Your task to perform on an android device: turn off wifi Image 0: 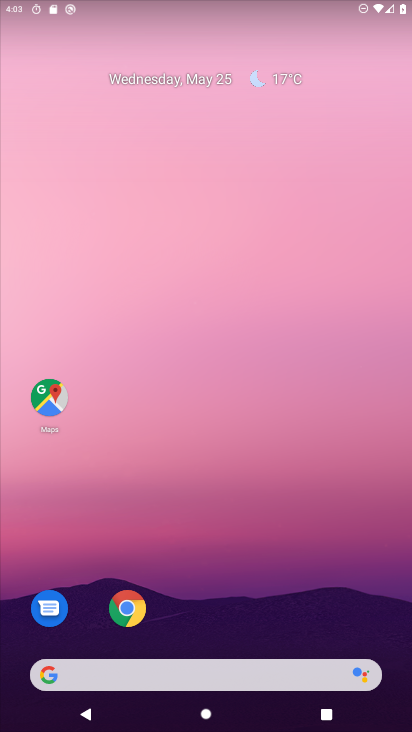
Step 0: drag from (163, 640) to (82, 157)
Your task to perform on an android device: turn off wifi Image 1: 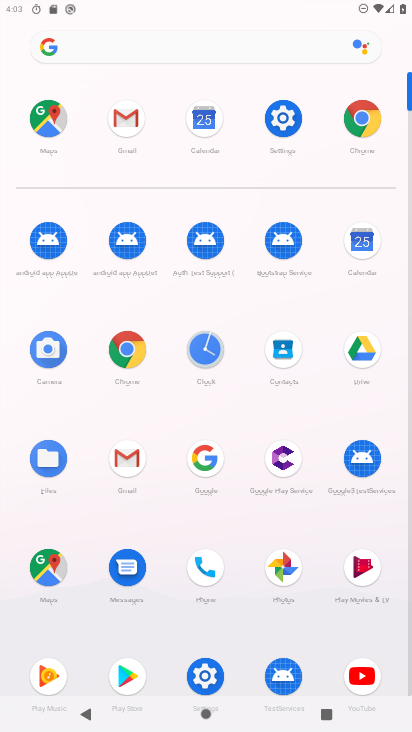
Step 1: click (281, 118)
Your task to perform on an android device: turn off wifi Image 2: 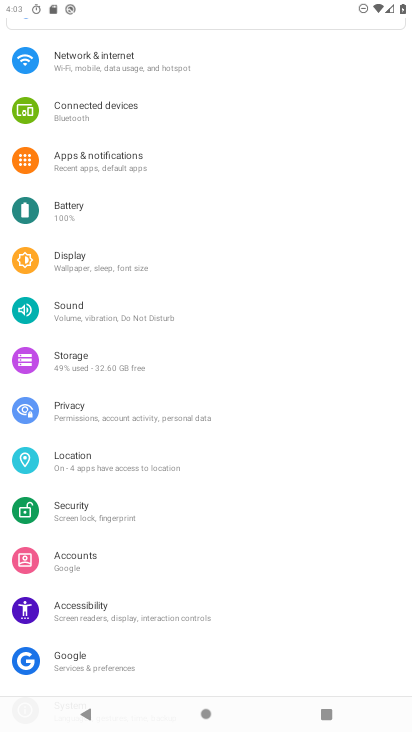
Step 2: drag from (150, 251) to (175, 444)
Your task to perform on an android device: turn off wifi Image 3: 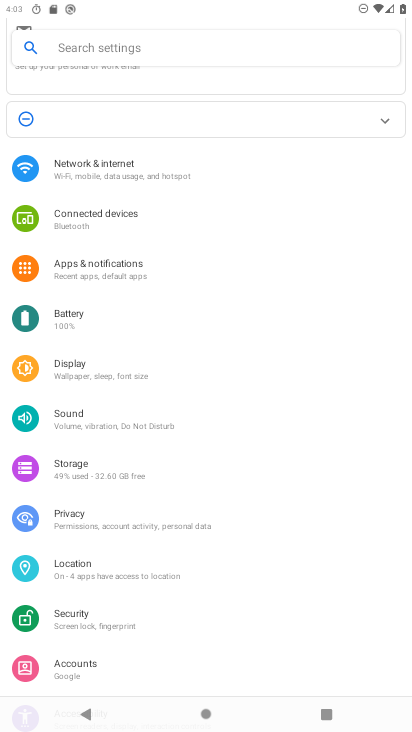
Step 3: click (96, 182)
Your task to perform on an android device: turn off wifi Image 4: 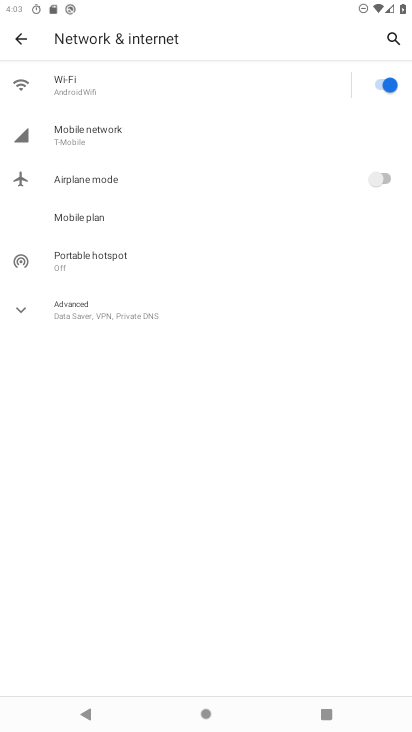
Step 4: click (375, 90)
Your task to perform on an android device: turn off wifi Image 5: 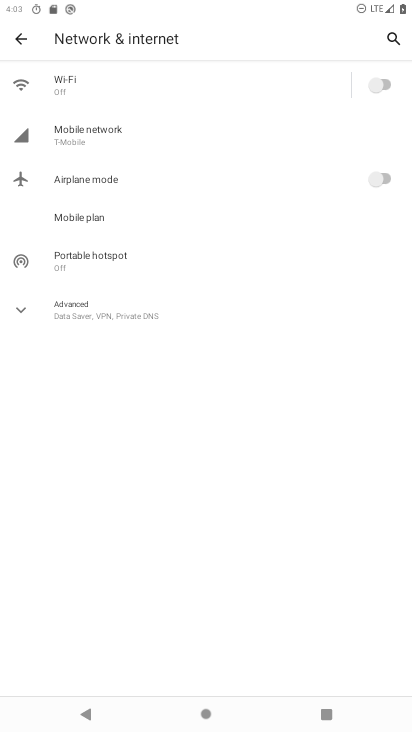
Step 5: task complete